Your task to perform on an android device: Show the shopping cart on newegg. Add logitech g502 to the cart on newegg, then select checkout. Image 0: 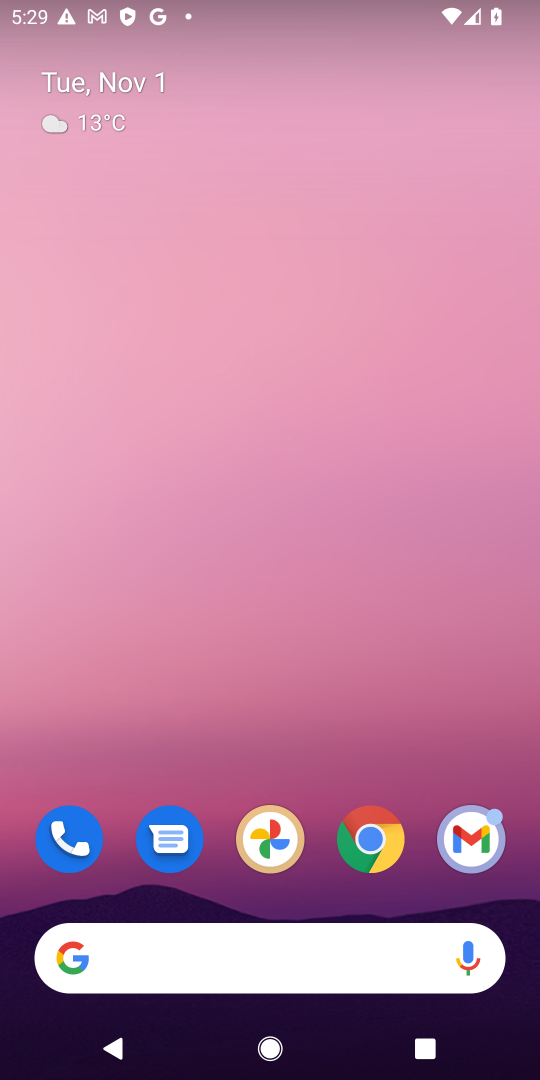
Step 0: drag from (294, 782) to (365, 88)
Your task to perform on an android device: Show the shopping cart on newegg. Add logitech g502 to the cart on newegg, then select checkout. Image 1: 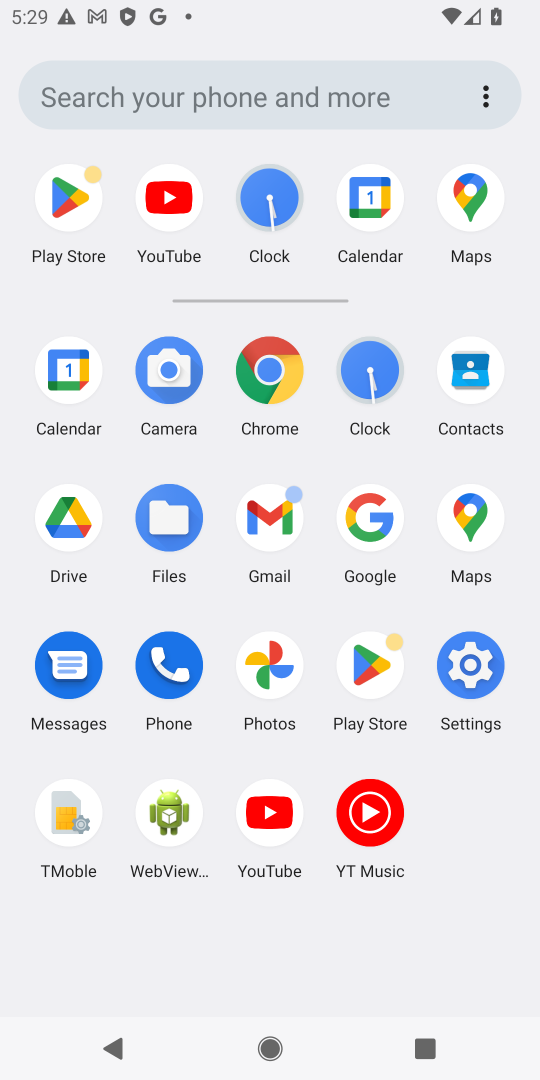
Step 1: click (274, 369)
Your task to perform on an android device: Show the shopping cart on newegg. Add logitech g502 to the cart on newegg, then select checkout. Image 2: 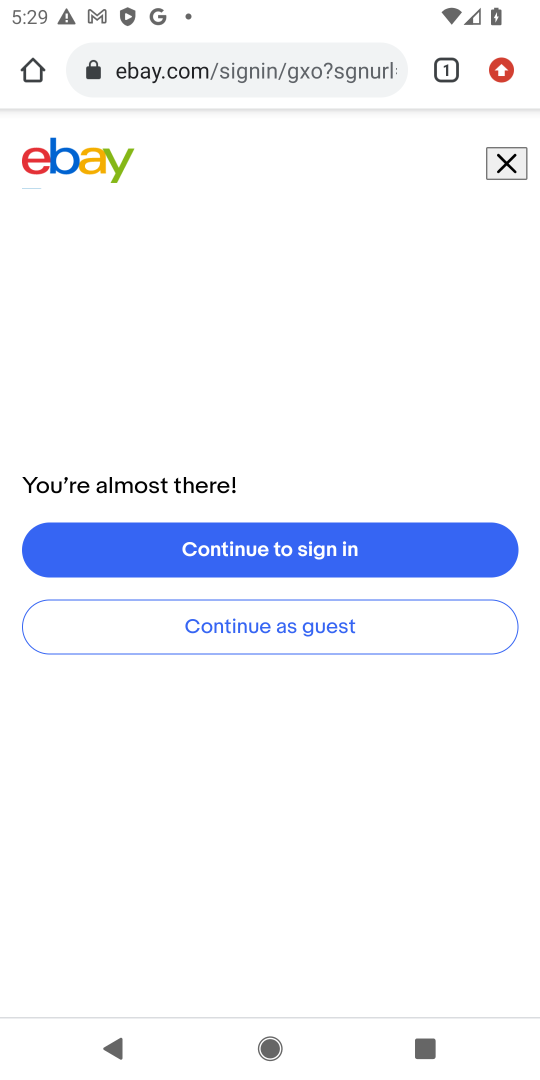
Step 2: click (284, 77)
Your task to perform on an android device: Show the shopping cart on newegg. Add logitech g502 to the cart on newegg, then select checkout. Image 3: 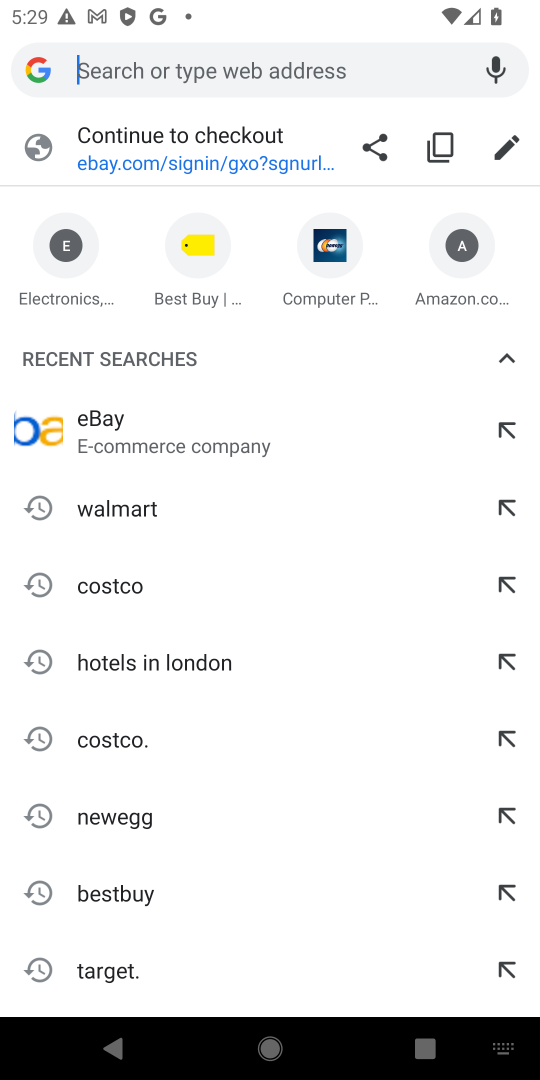
Step 3: type "newegg.com"
Your task to perform on an android device: Show the shopping cart on newegg. Add logitech g502 to the cart on newegg, then select checkout. Image 4: 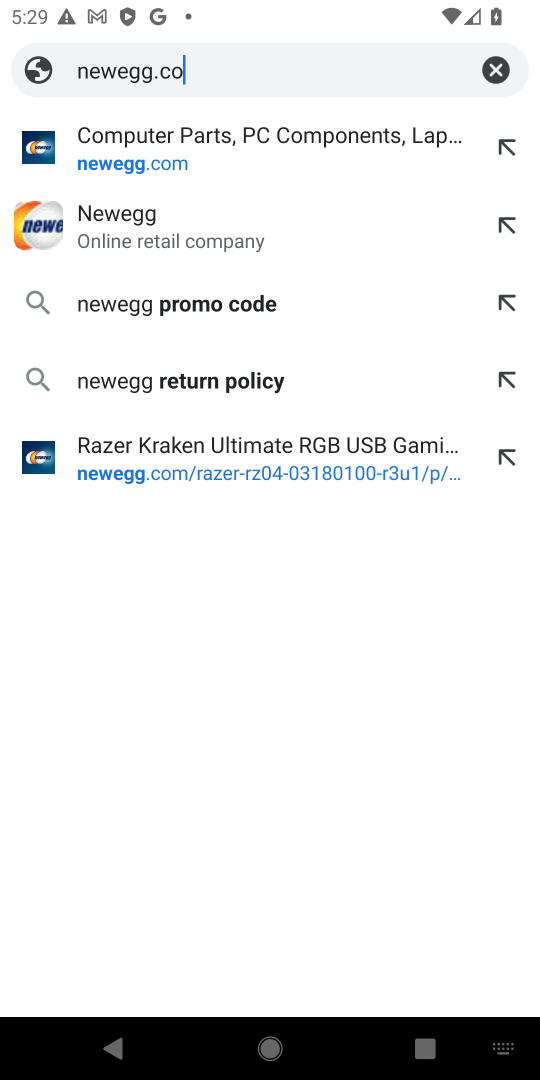
Step 4: press enter
Your task to perform on an android device: Show the shopping cart on newegg. Add logitech g502 to the cart on newegg, then select checkout. Image 5: 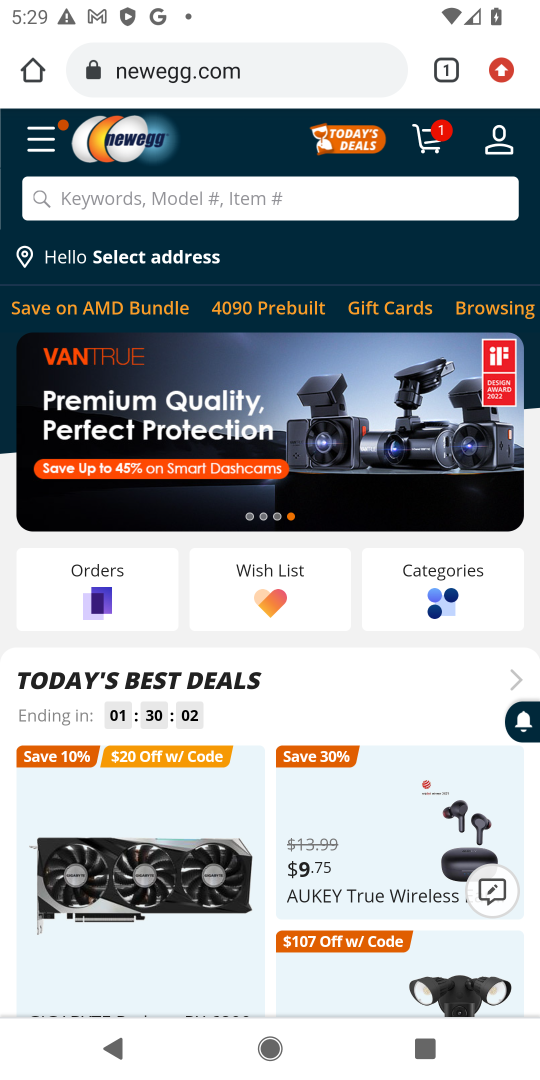
Step 5: click (442, 146)
Your task to perform on an android device: Show the shopping cart on newegg. Add logitech g502 to the cart on newegg, then select checkout. Image 6: 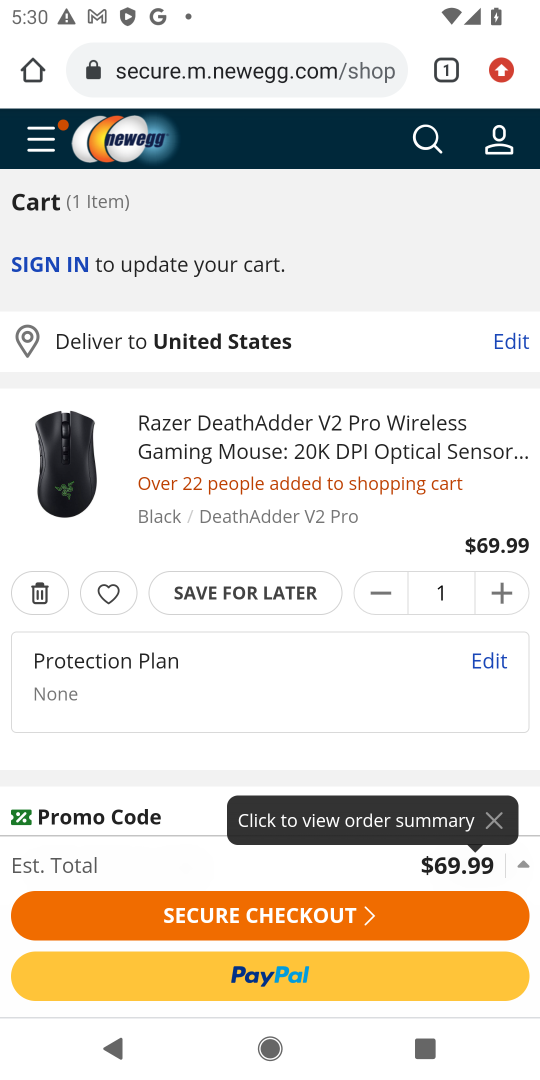
Step 6: click (442, 146)
Your task to perform on an android device: Show the shopping cart on newegg. Add logitech g502 to the cart on newegg, then select checkout. Image 7: 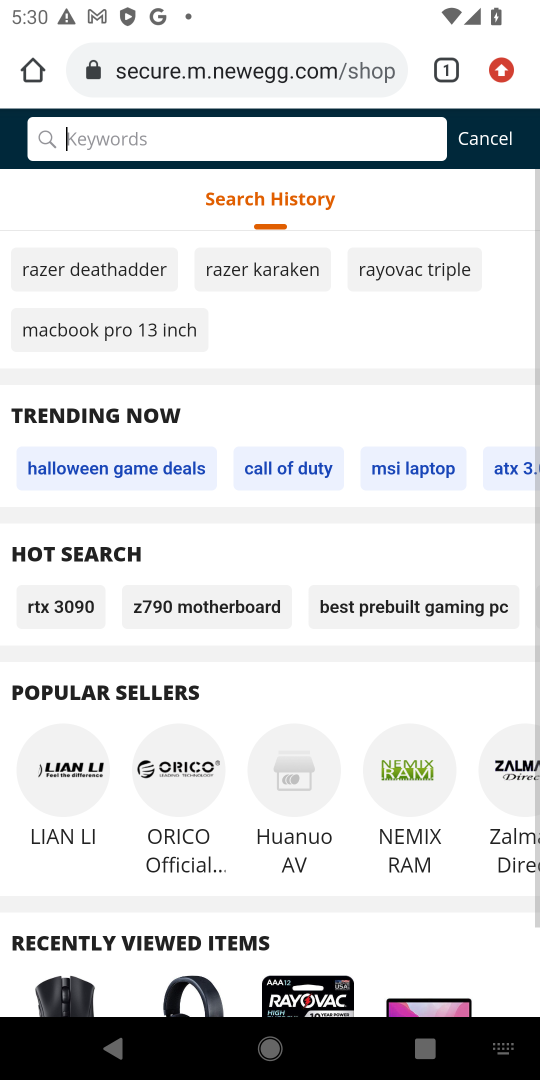
Step 7: click (419, 134)
Your task to perform on an android device: Show the shopping cart on newegg. Add logitech g502 to the cart on newegg, then select checkout. Image 8: 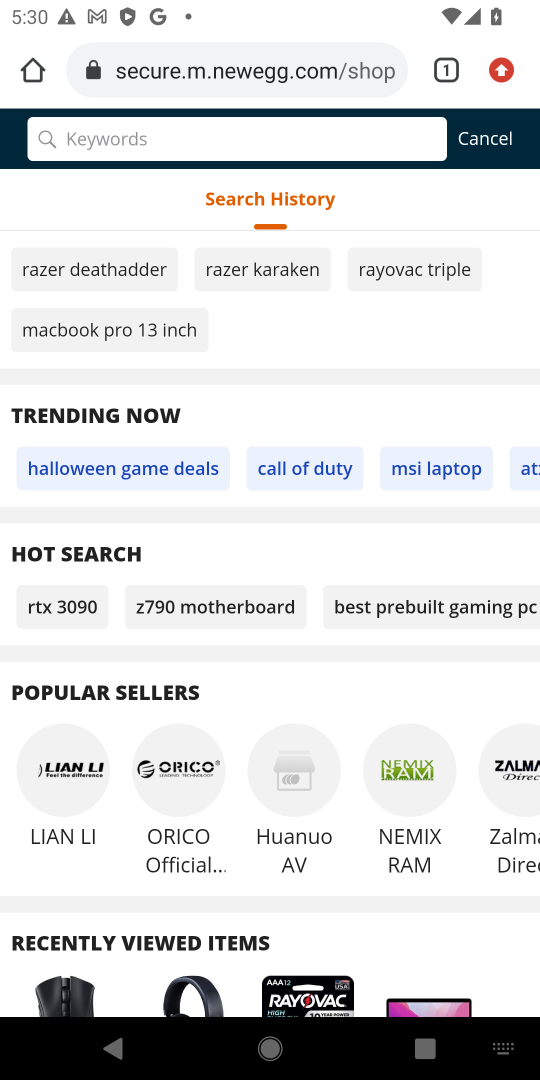
Step 8: type "logitech g502"
Your task to perform on an android device: Show the shopping cart on newegg. Add logitech g502 to the cart on newegg, then select checkout. Image 9: 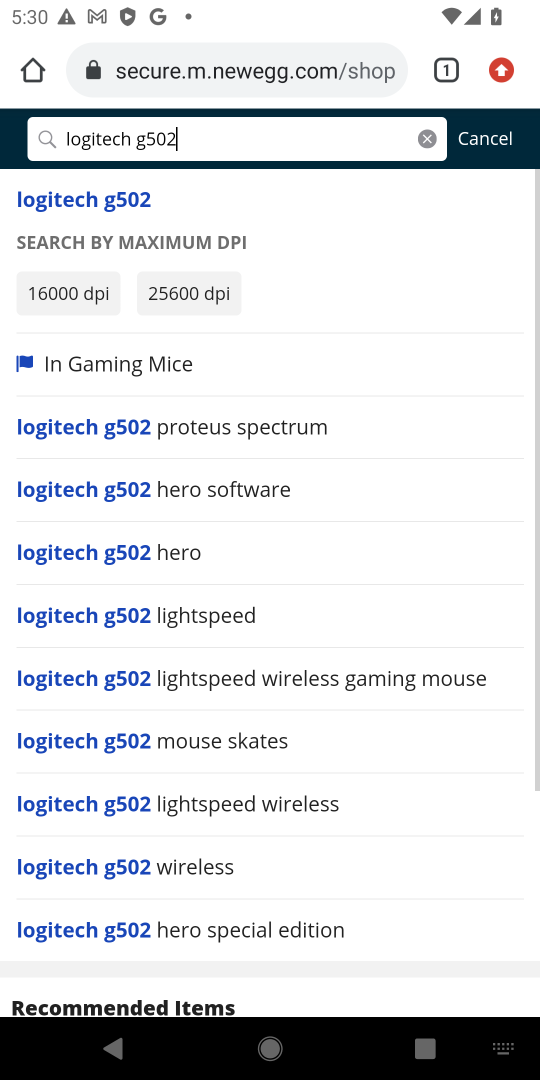
Step 9: press enter
Your task to perform on an android device: Show the shopping cart on newegg. Add logitech g502 to the cart on newegg, then select checkout. Image 10: 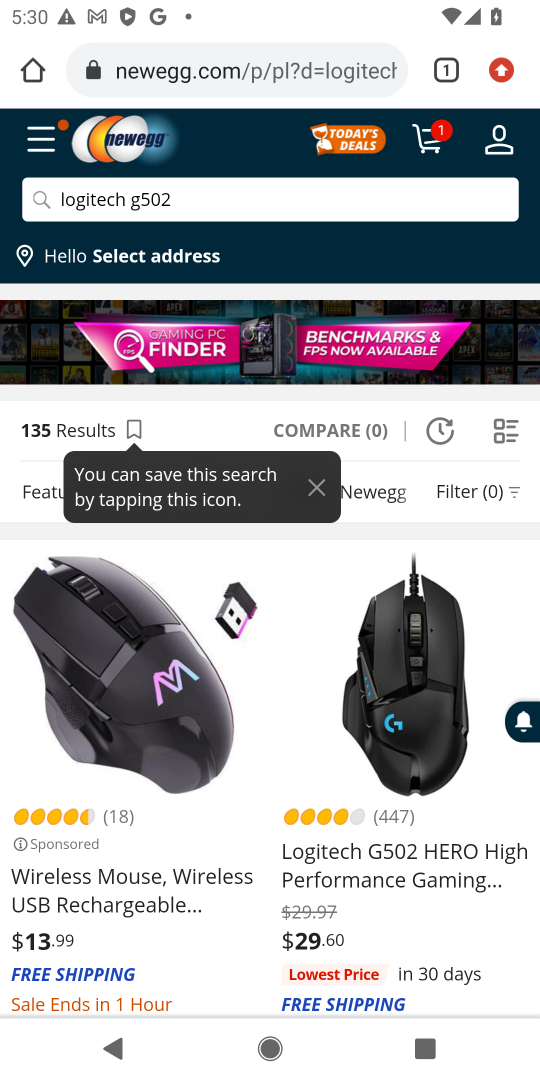
Step 10: drag from (305, 761) to (379, 168)
Your task to perform on an android device: Show the shopping cart on newegg. Add logitech g502 to the cart on newegg, then select checkout. Image 11: 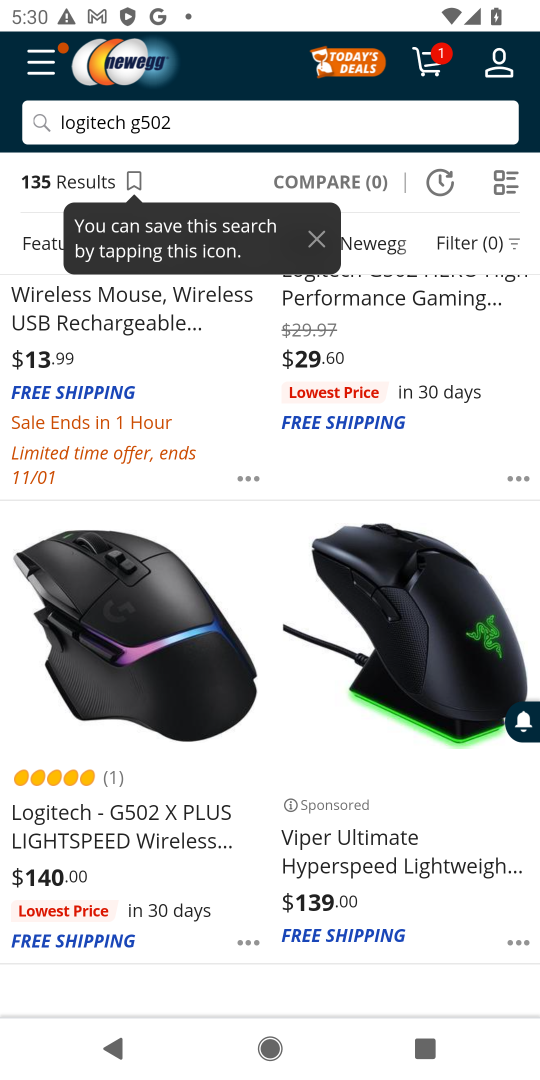
Step 11: drag from (328, 381) to (291, 823)
Your task to perform on an android device: Show the shopping cart on newegg. Add logitech g502 to the cart on newegg, then select checkout. Image 12: 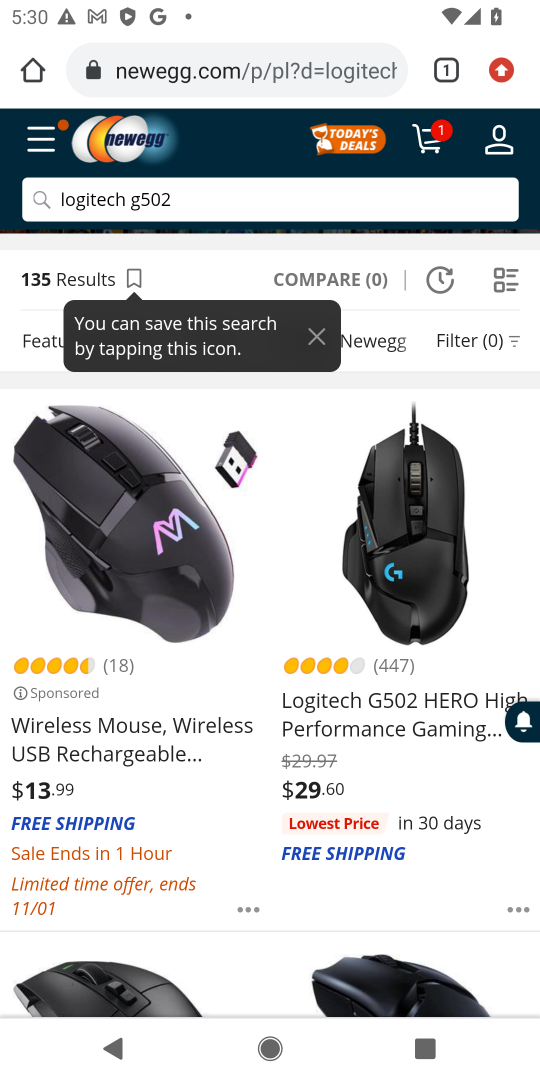
Step 12: drag from (292, 816) to (340, 560)
Your task to perform on an android device: Show the shopping cart on newegg. Add logitech g502 to the cart on newegg, then select checkout. Image 13: 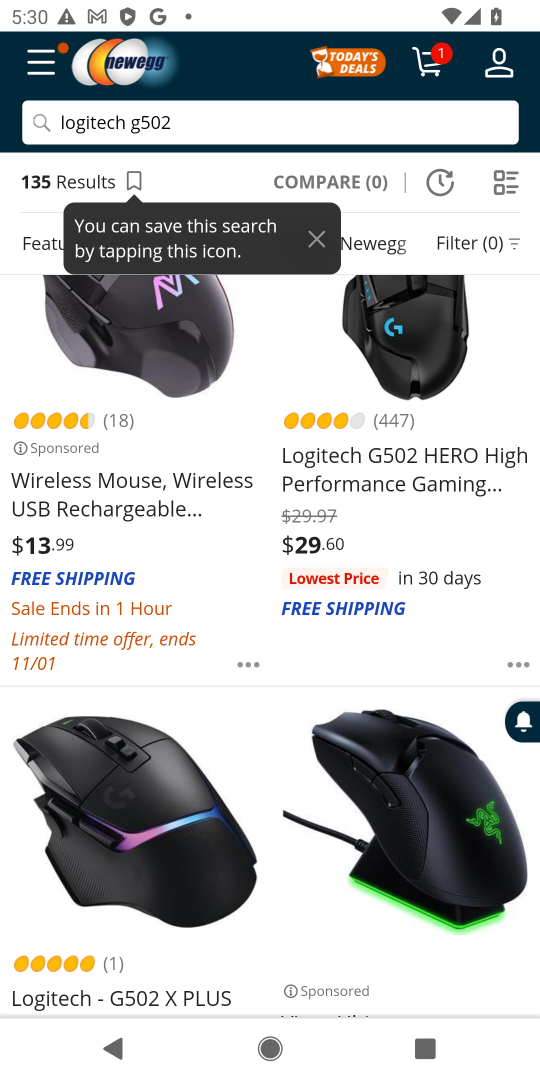
Step 13: click (382, 471)
Your task to perform on an android device: Show the shopping cart on newegg. Add logitech g502 to the cart on newegg, then select checkout. Image 14: 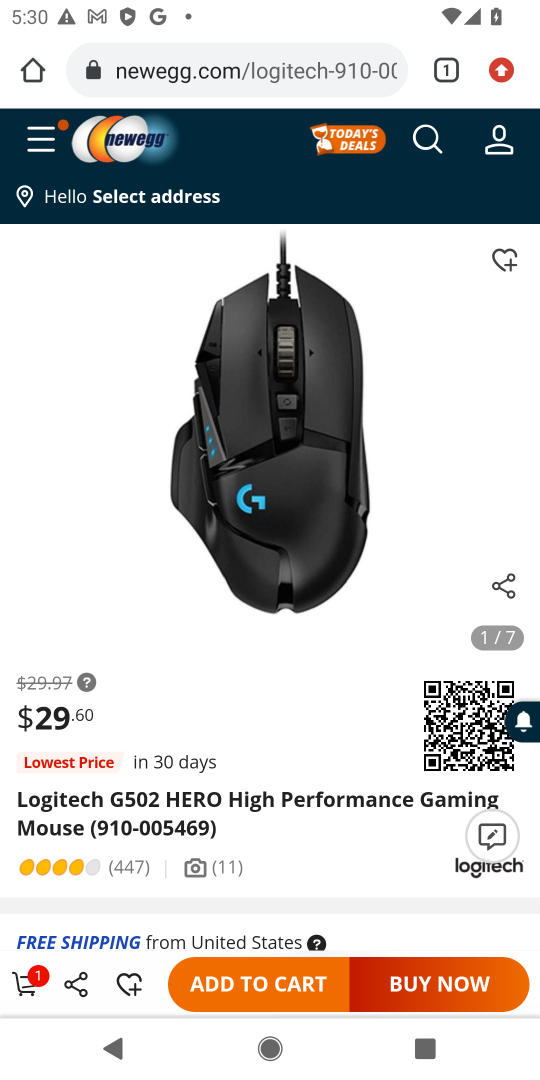
Step 14: click (259, 985)
Your task to perform on an android device: Show the shopping cart on newegg. Add logitech g502 to the cart on newegg, then select checkout. Image 15: 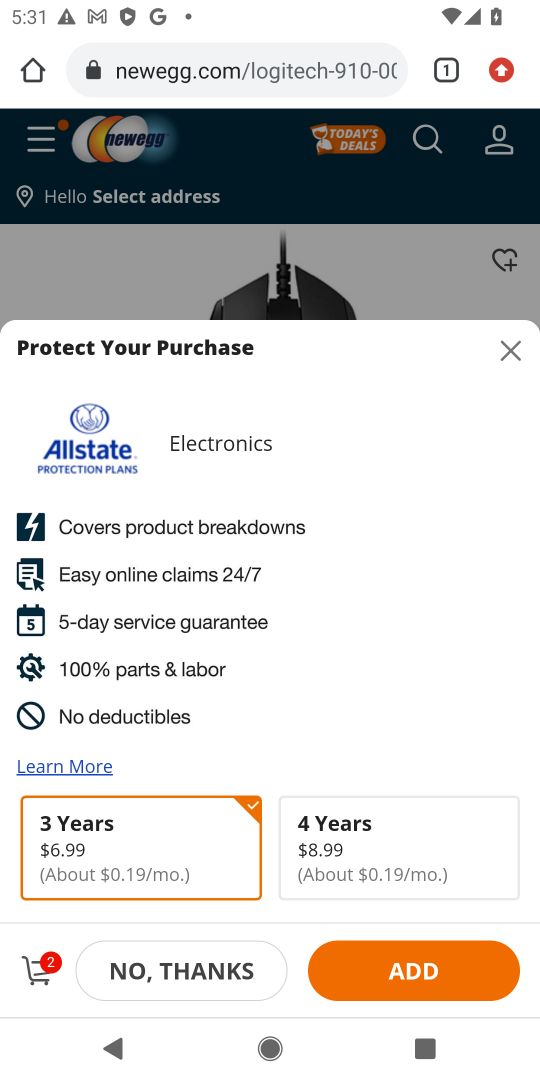
Step 15: drag from (206, 967) to (259, 734)
Your task to perform on an android device: Show the shopping cart on newegg. Add logitech g502 to the cart on newegg, then select checkout. Image 16: 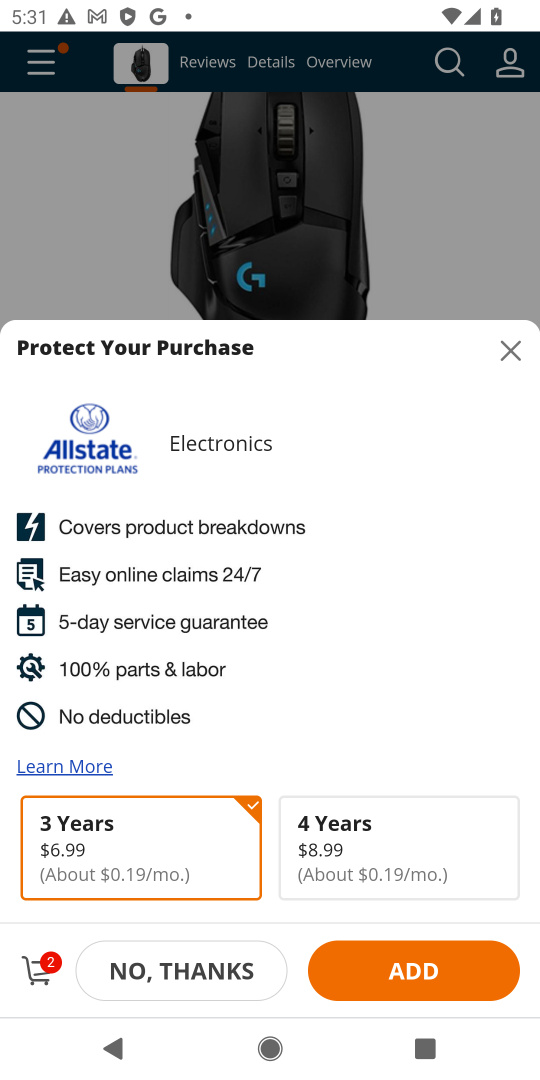
Step 16: click (211, 960)
Your task to perform on an android device: Show the shopping cart on newegg. Add logitech g502 to the cart on newegg, then select checkout. Image 17: 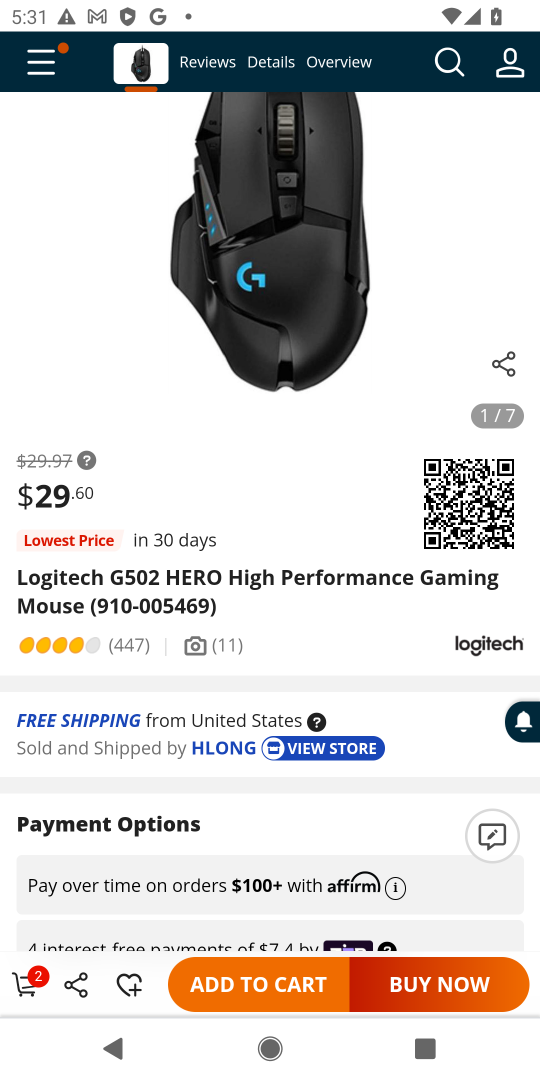
Step 17: click (25, 983)
Your task to perform on an android device: Show the shopping cart on newegg. Add logitech g502 to the cart on newegg, then select checkout. Image 18: 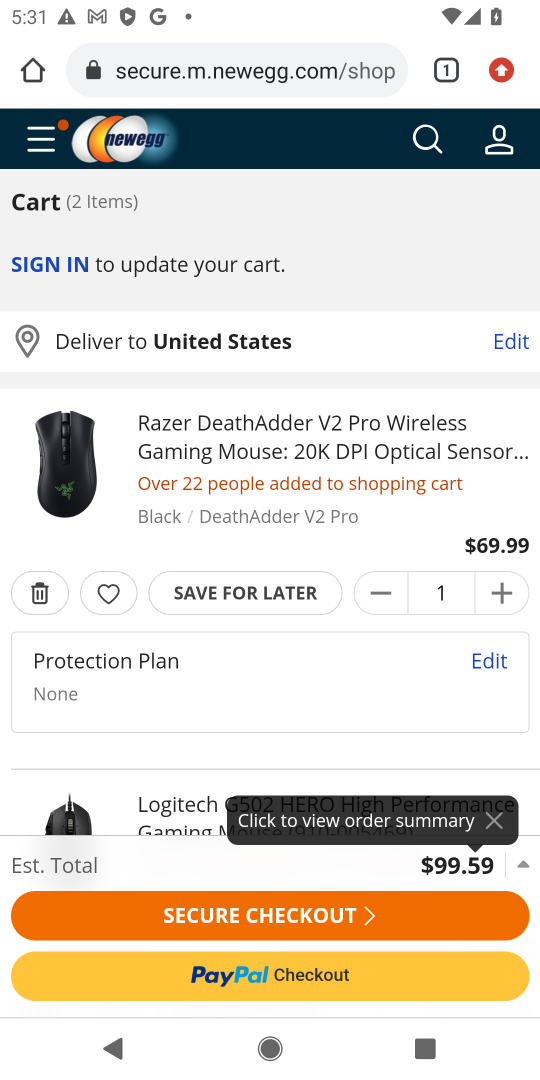
Step 18: drag from (246, 733) to (262, 427)
Your task to perform on an android device: Show the shopping cart on newegg. Add logitech g502 to the cart on newegg, then select checkout. Image 19: 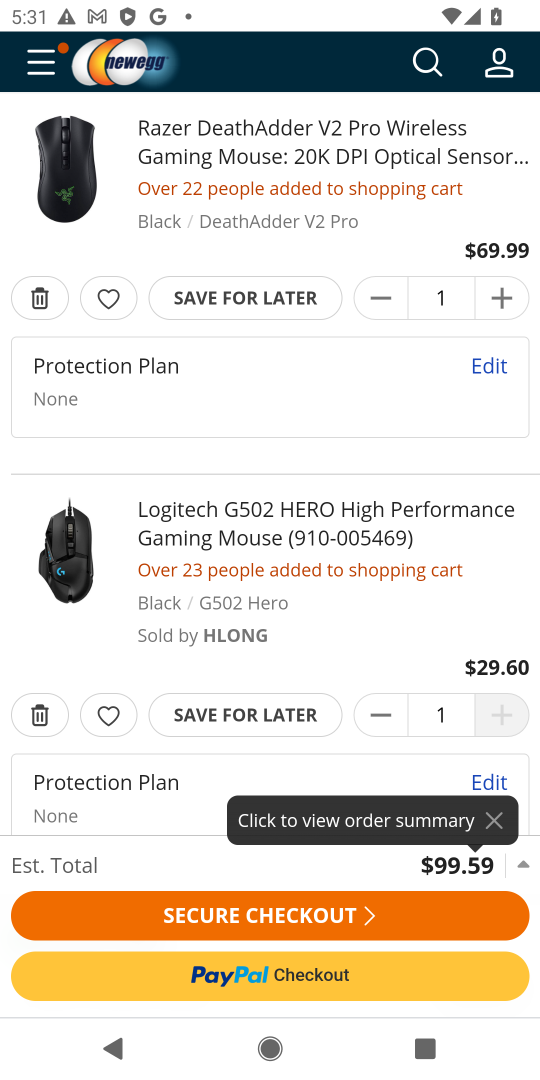
Step 19: click (288, 912)
Your task to perform on an android device: Show the shopping cart on newegg. Add logitech g502 to the cart on newegg, then select checkout. Image 20: 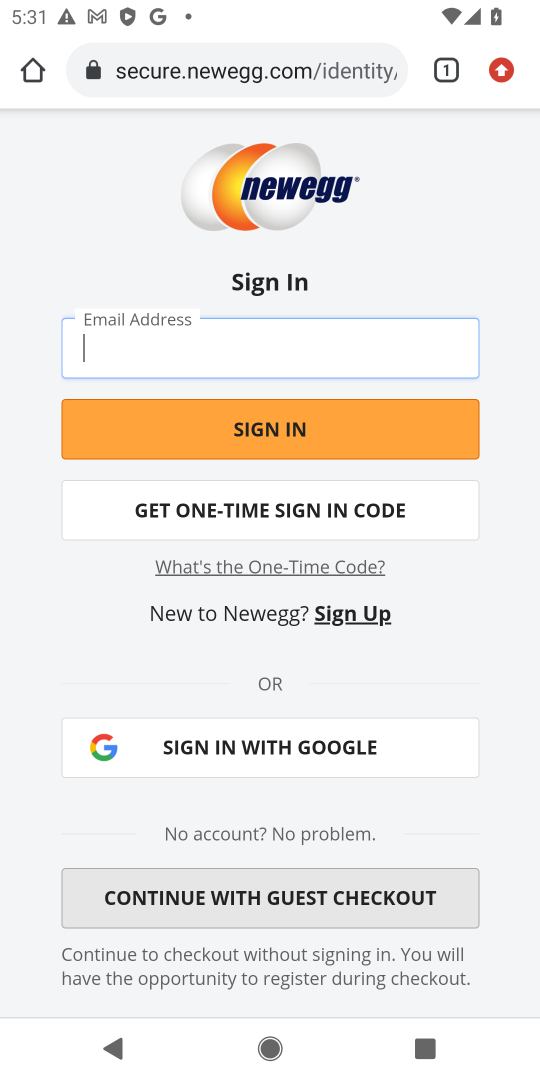
Step 20: task complete